Your task to perform on an android device: empty trash in the gmail app Image 0: 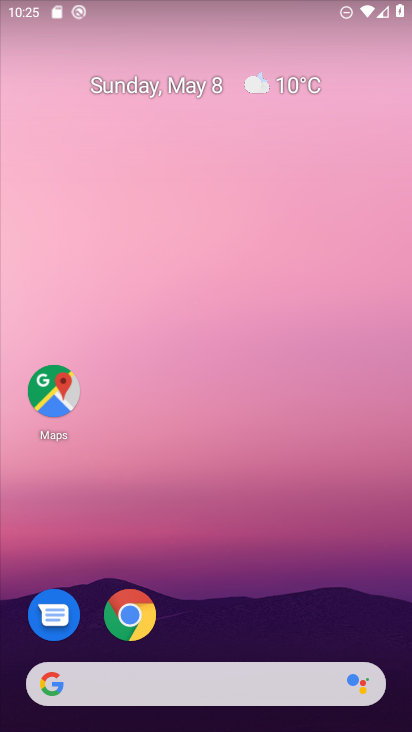
Step 0: drag from (275, 569) to (287, 12)
Your task to perform on an android device: empty trash in the gmail app Image 1: 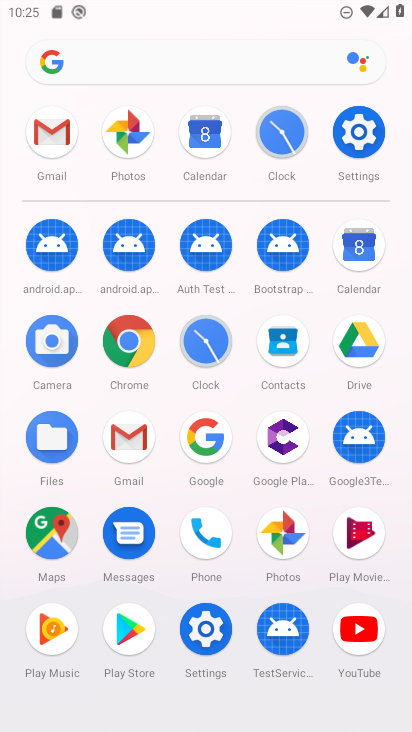
Step 1: click (131, 433)
Your task to perform on an android device: empty trash in the gmail app Image 2: 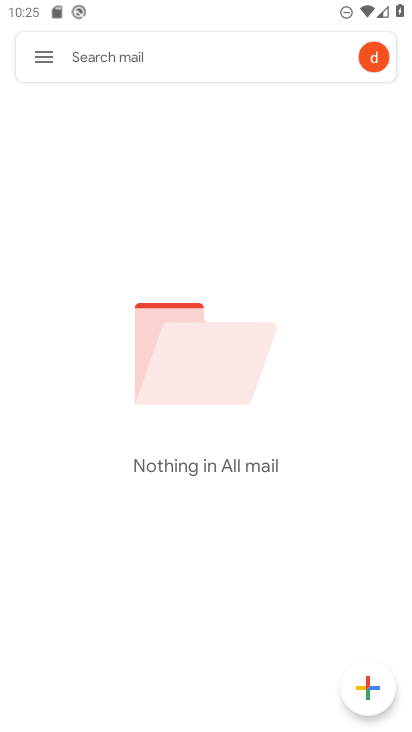
Step 2: click (45, 61)
Your task to perform on an android device: empty trash in the gmail app Image 3: 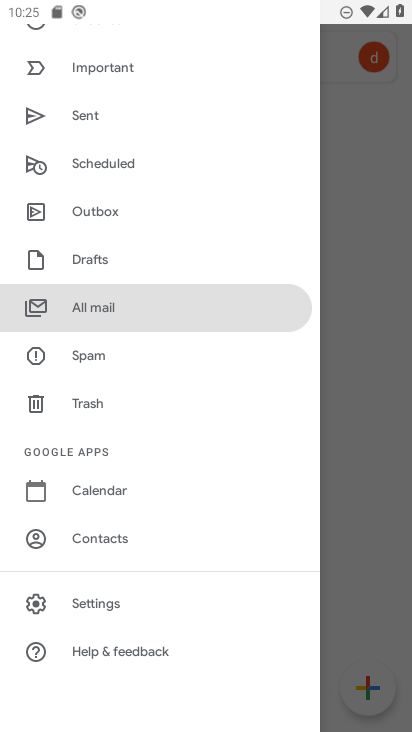
Step 3: click (95, 408)
Your task to perform on an android device: empty trash in the gmail app Image 4: 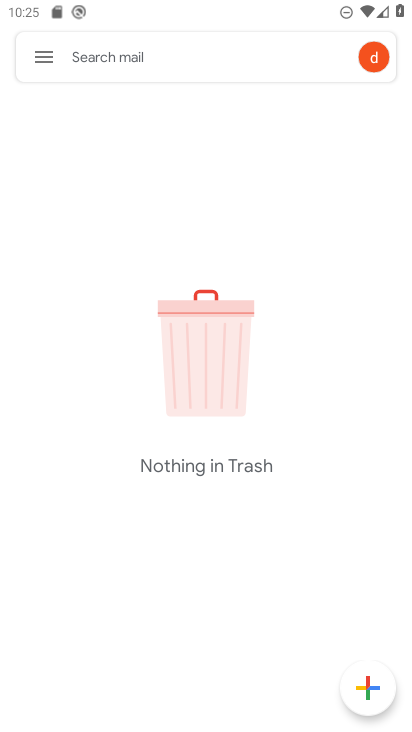
Step 4: task complete